Your task to perform on an android device: What is the news today? Image 0: 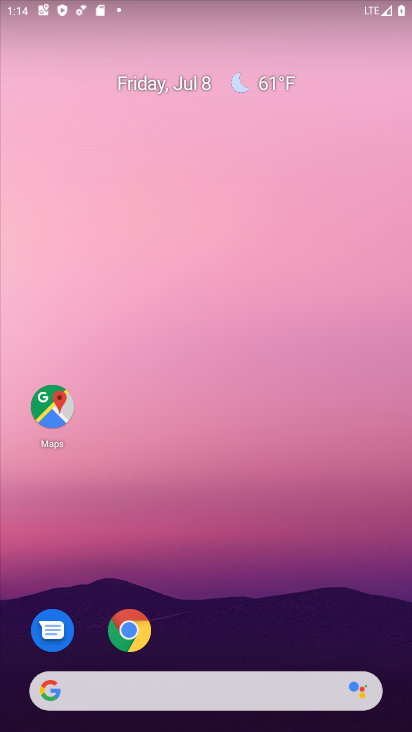
Step 0: drag from (373, 678) to (257, 201)
Your task to perform on an android device: What is the news today? Image 1: 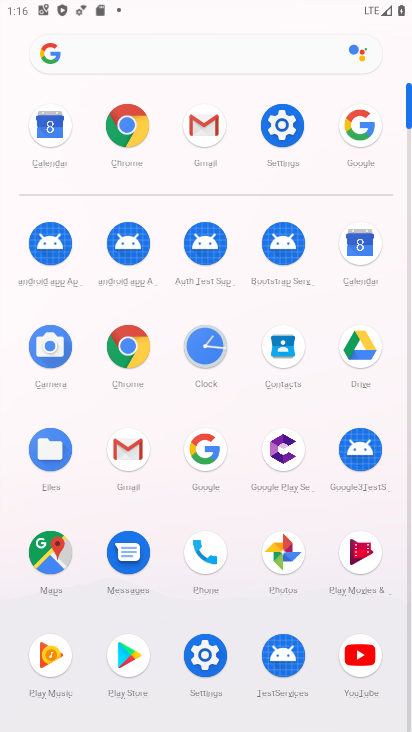
Step 1: click (182, 453)
Your task to perform on an android device: What is the news today? Image 2: 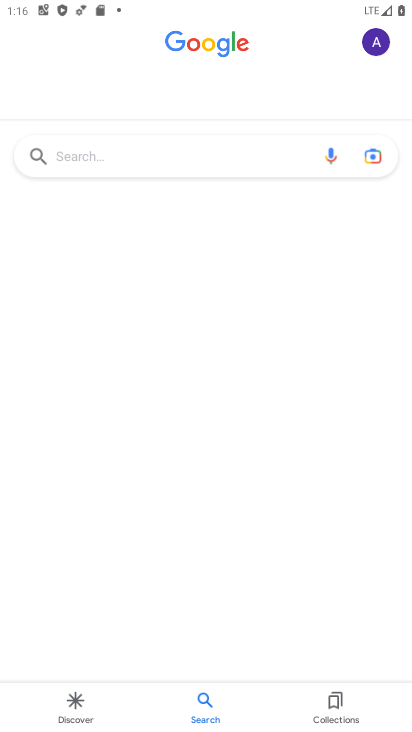
Step 2: click (111, 158)
Your task to perform on an android device: What is the news today? Image 3: 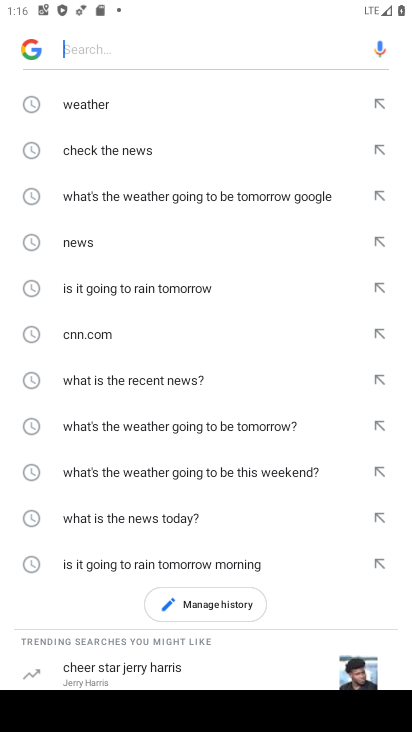
Step 3: type "What is the news today?"
Your task to perform on an android device: What is the news today? Image 4: 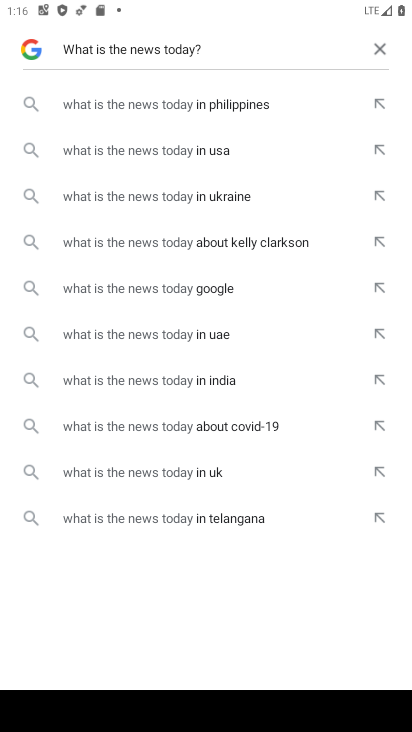
Step 4: click (205, 286)
Your task to perform on an android device: What is the news today? Image 5: 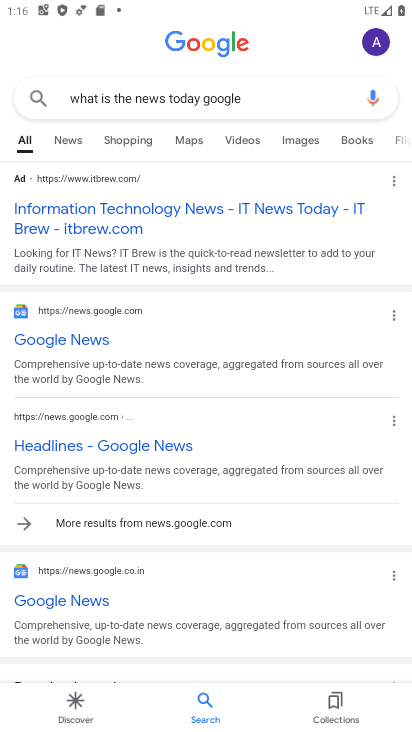
Step 5: task complete